Your task to perform on an android device: Play the last video I watched on Youtube Image 0: 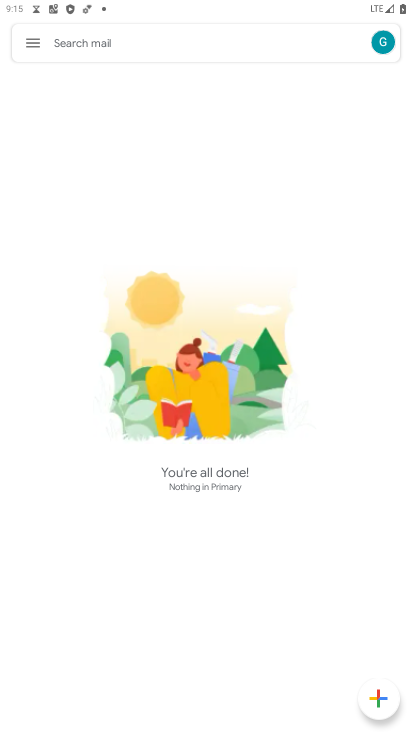
Step 0: press home button
Your task to perform on an android device: Play the last video I watched on Youtube Image 1: 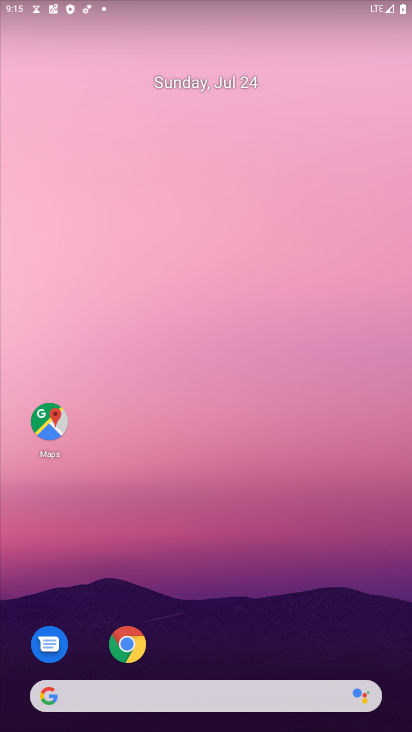
Step 1: drag from (283, 648) to (314, 131)
Your task to perform on an android device: Play the last video I watched on Youtube Image 2: 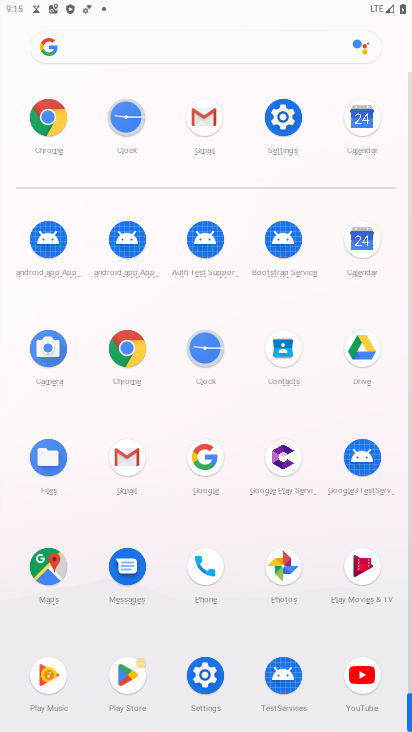
Step 2: click (369, 676)
Your task to perform on an android device: Play the last video I watched on Youtube Image 3: 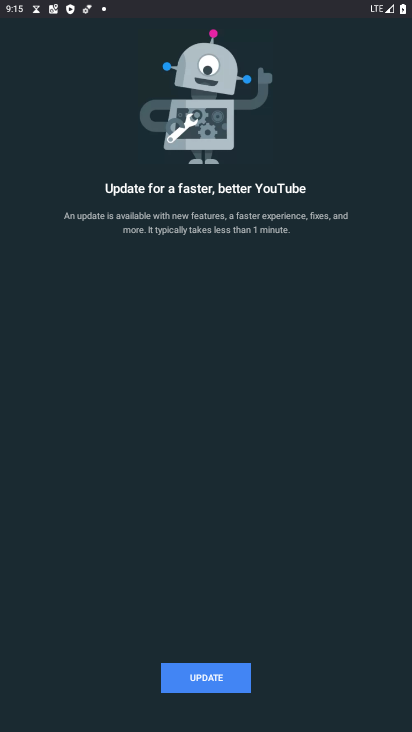
Step 3: click (224, 689)
Your task to perform on an android device: Play the last video I watched on Youtube Image 4: 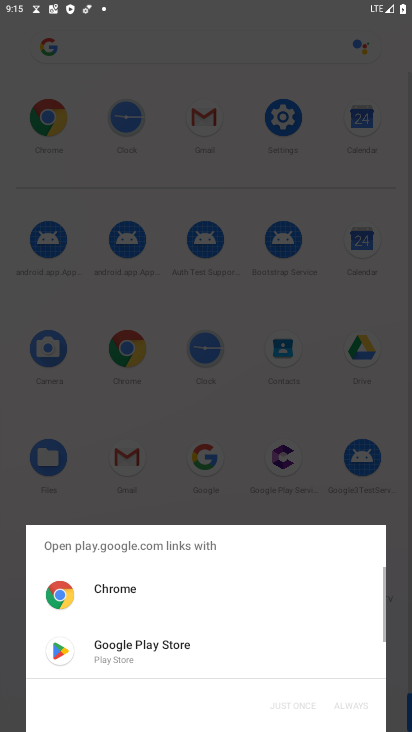
Step 4: click (161, 640)
Your task to perform on an android device: Play the last video I watched on Youtube Image 5: 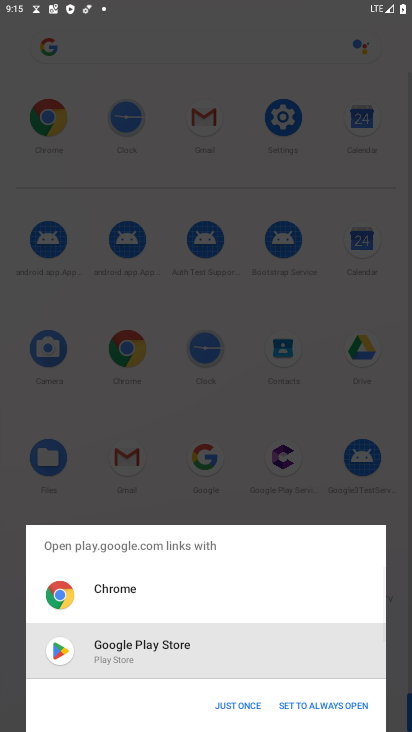
Step 5: click (239, 697)
Your task to perform on an android device: Play the last video I watched on Youtube Image 6: 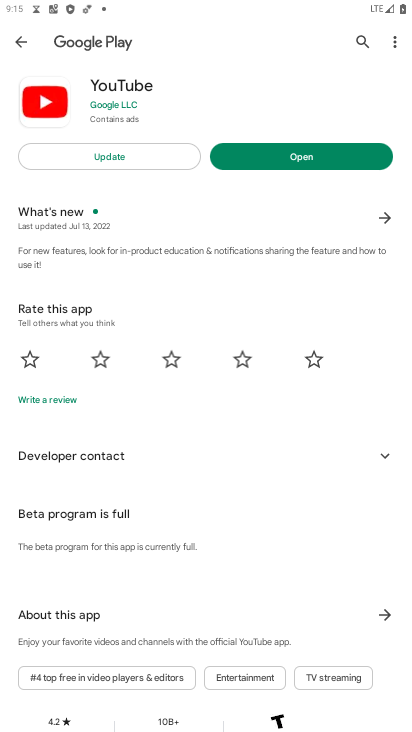
Step 6: click (156, 157)
Your task to perform on an android device: Play the last video I watched on Youtube Image 7: 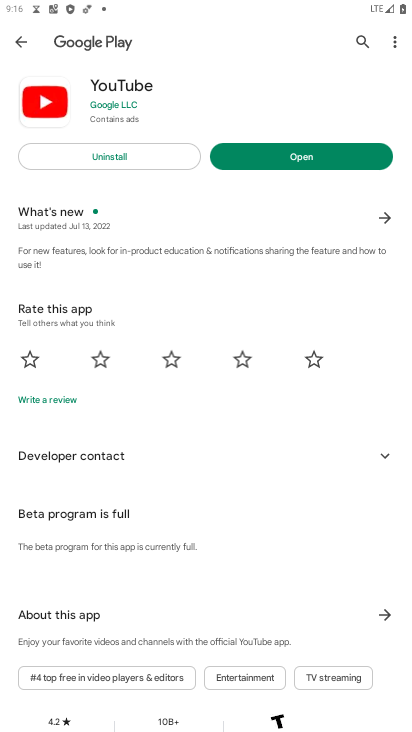
Step 7: click (339, 162)
Your task to perform on an android device: Play the last video I watched on Youtube Image 8: 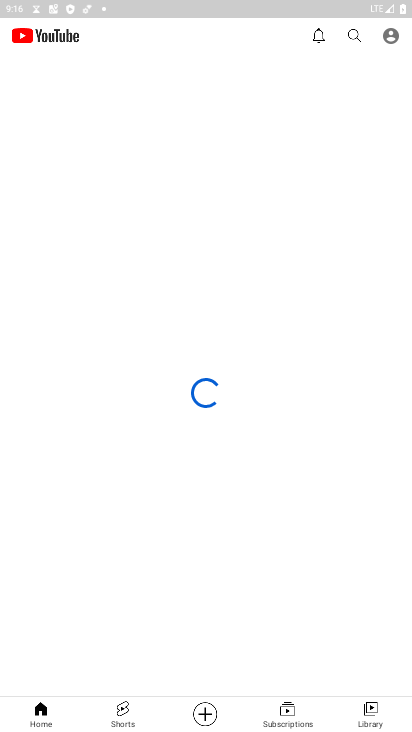
Step 8: click (364, 711)
Your task to perform on an android device: Play the last video I watched on Youtube Image 9: 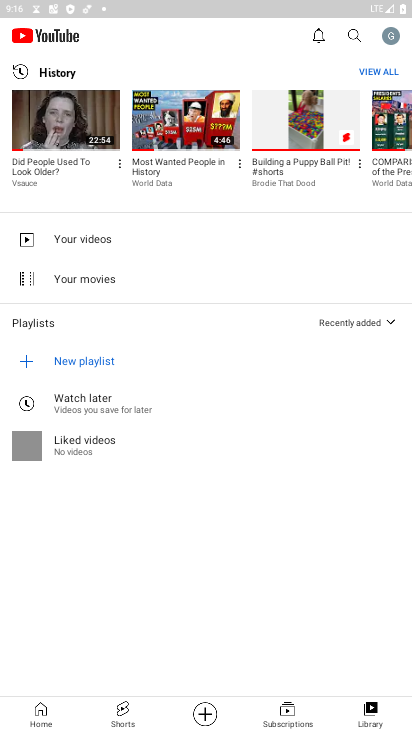
Step 9: click (43, 103)
Your task to perform on an android device: Play the last video I watched on Youtube Image 10: 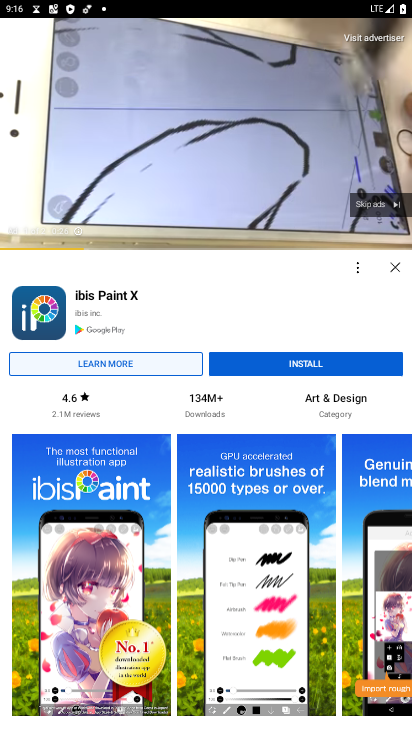
Step 10: task complete